Your task to perform on an android device: See recent photos Image 0: 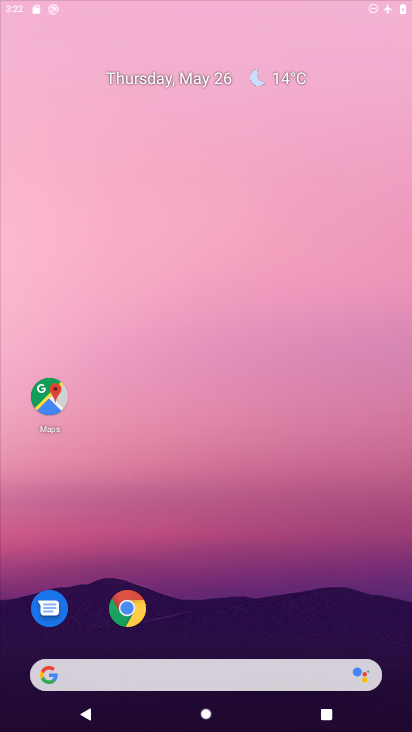
Step 0: drag from (277, 591) to (315, 12)
Your task to perform on an android device: See recent photos Image 1: 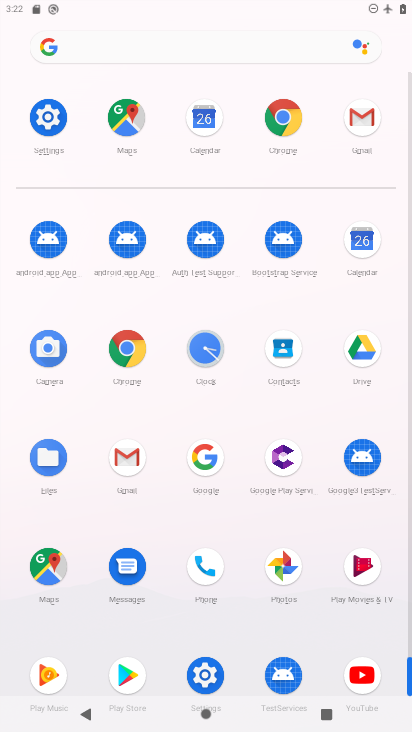
Step 1: click (294, 114)
Your task to perform on an android device: See recent photos Image 2: 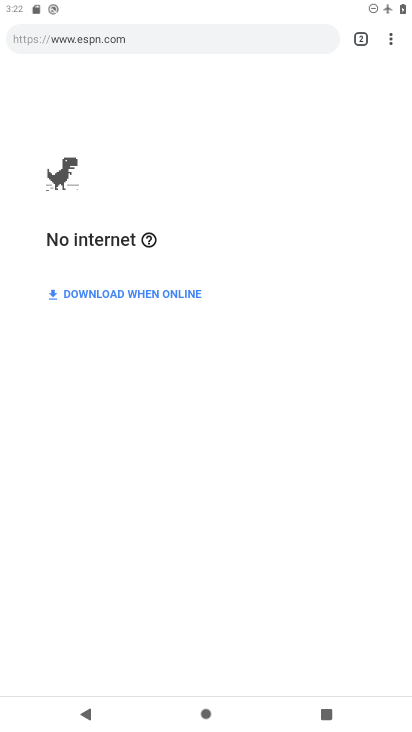
Step 2: press home button
Your task to perform on an android device: See recent photos Image 3: 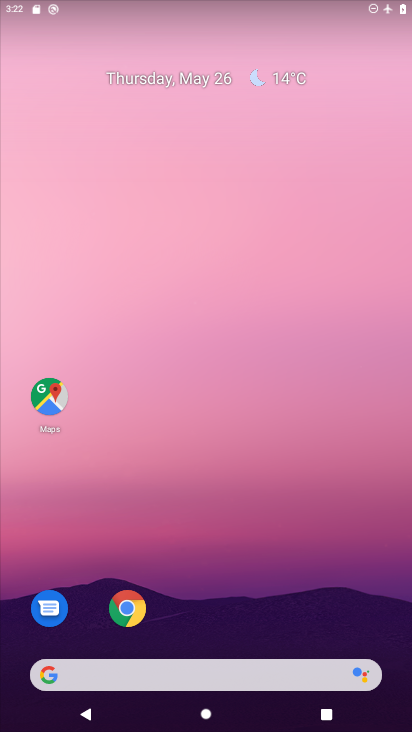
Step 3: drag from (279, 501) to (185, 8)
Your task to perform on an android device: See recent photos Image 4: 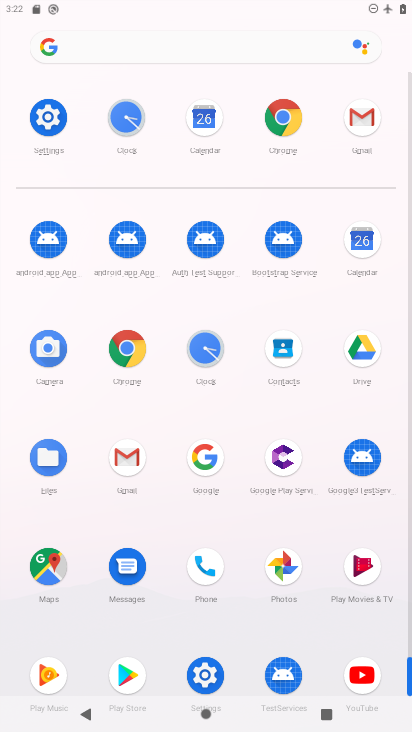
Step 4: click (293, 565)
Your task to perform on an android device: See recent photos Image 5: 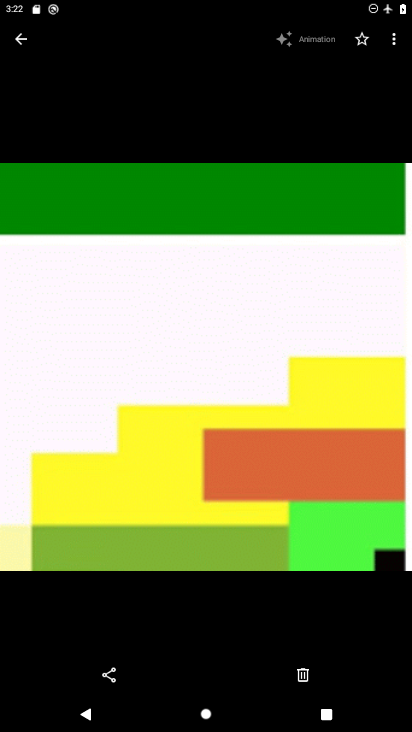
Step 5: task complete